Your task to perform on an android device: move a message to another label in the gmail app Image 0: 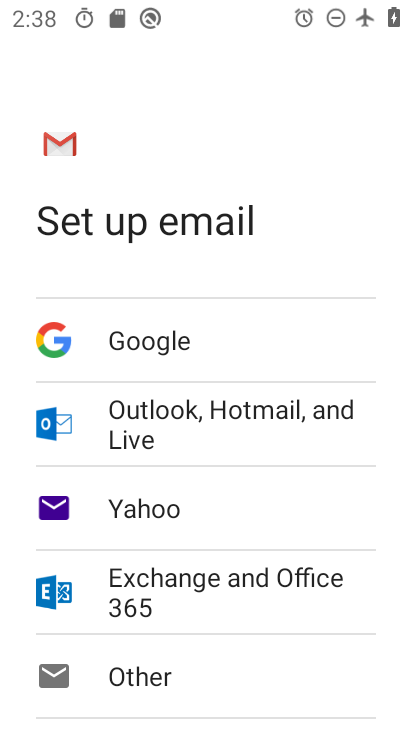
Step 0: press home button
Your task to perform on an android device: move a message to another label in the gmail app Image 1: 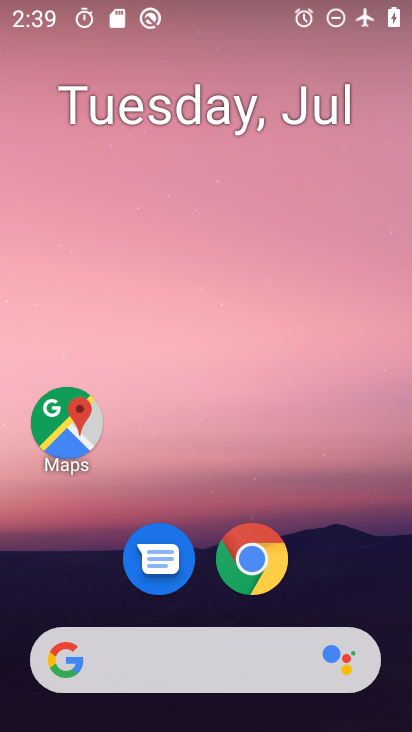
Step 1: drag from (375, 568) to (392, 99)
Your task to perform on an android device: move a message to another label in the gmail app Image 2: 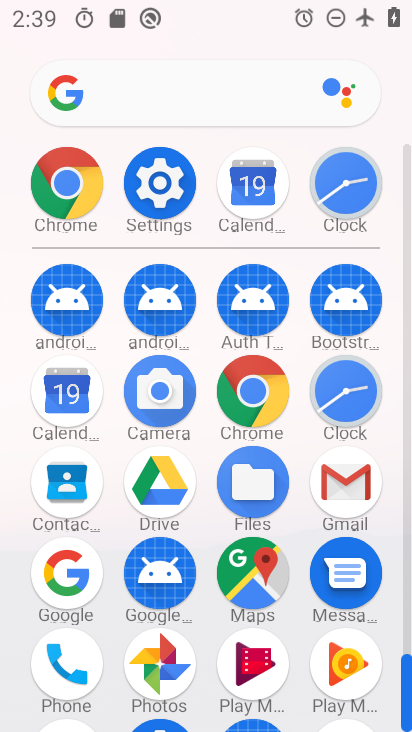
Step 2: click (336, 483)
Your task to perform on an android device: move a message to another label in the gmail app Image 3: 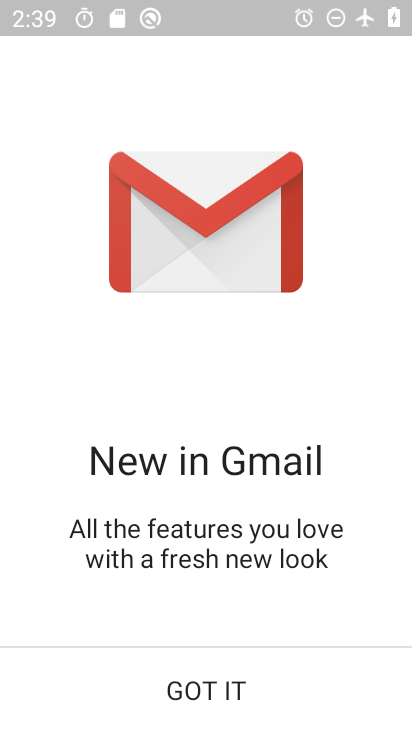
Step 3: click (219, 678)
Your task to perform on an android device: move a message to another label in the gmail app Image 4: 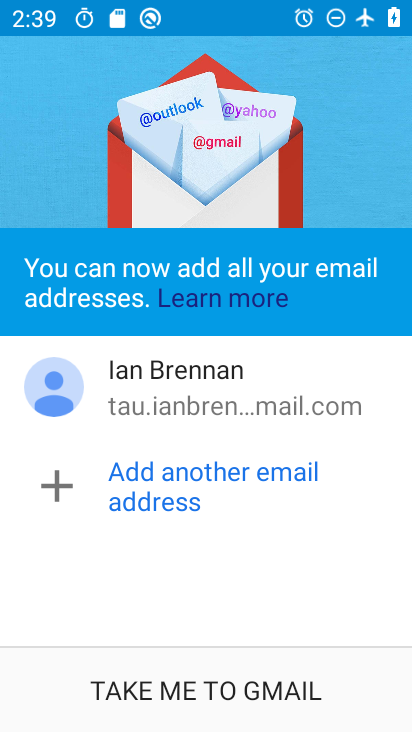
Step 4: click (219, 678)
Your task to perform on an android device: move a message to another label in the gmail app Image 5: 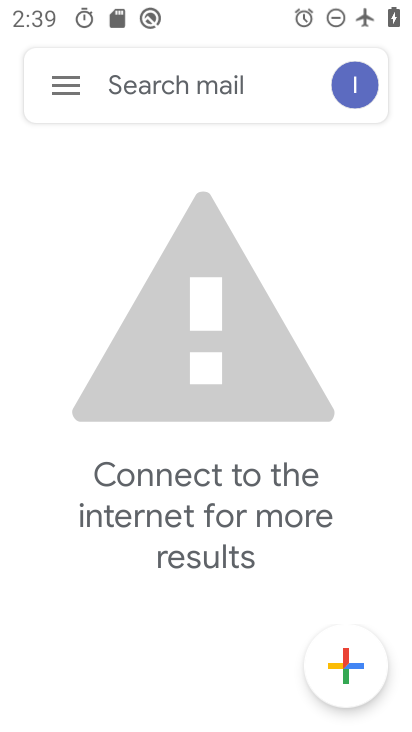
Step 5: click (68, 86)
Your task to perform on an android device: move a message to another label in the gmail app Image 6: 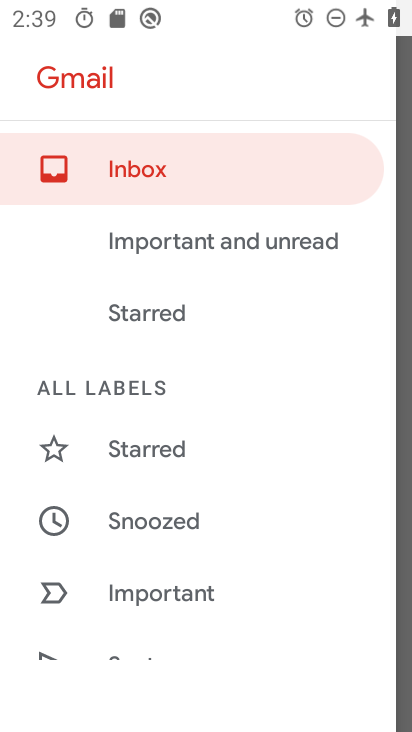
Step 6: click (272, 165)
Your task to perform on an android device: move a message to another label in the gmail app Image 7: 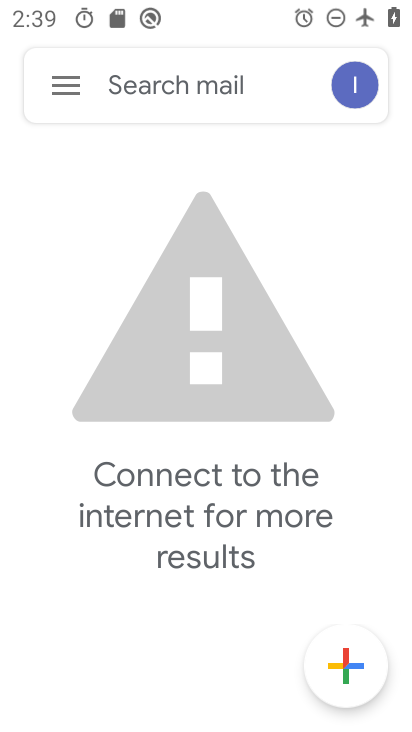
Step 7: task complete